Your task to perform on an android device: change the clock display to show seconds Image 0: 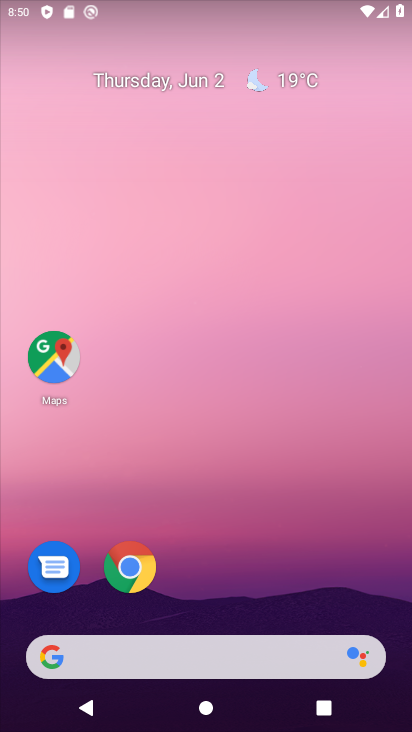
Step 0: press home button
Your task to perform on an android device: change the clock display to show seconds Image 1: 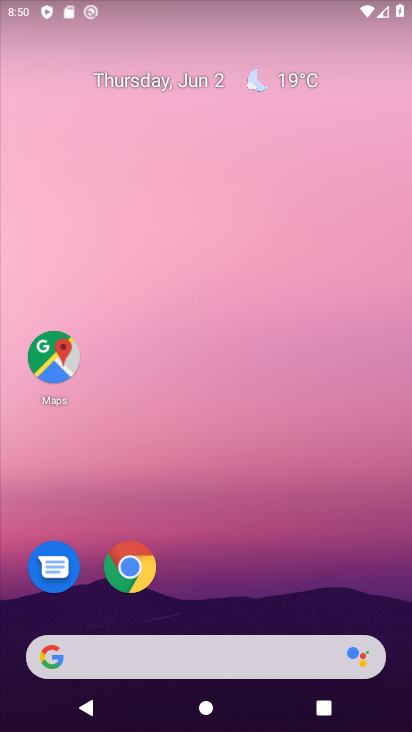
Step 1: click (239, 105)
Your task to perform on an android device: change the clock display to show seconds Image 2: 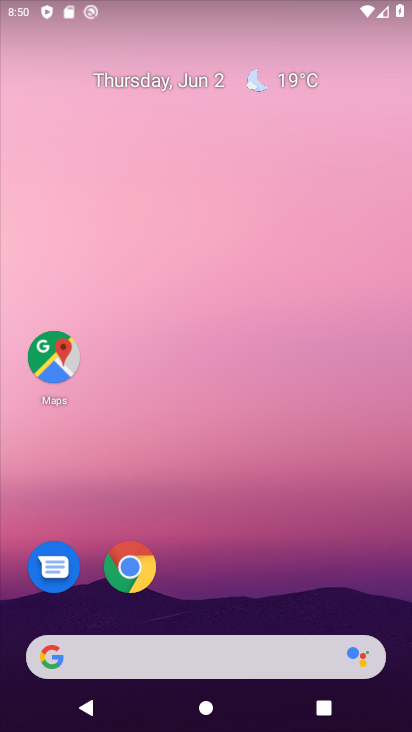
Step 2: drag from (213, 610) to (207, 0)
Your task to perform on an android device: change the clock display to show seconds Image 3: 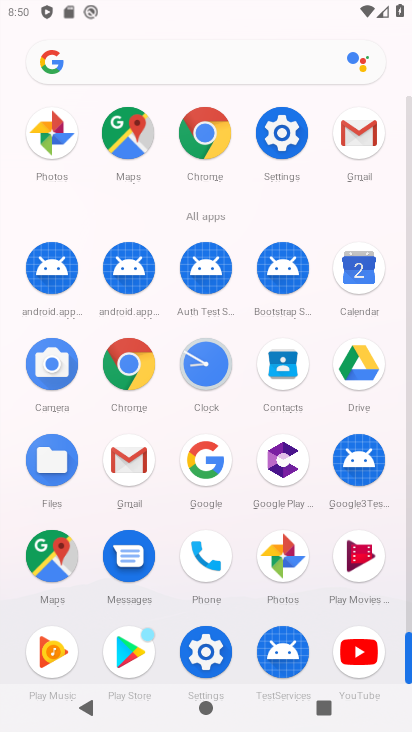
Step 3: click (206, 363)
Your task to perform on an android device: change the clock display to show seconds Image 4: 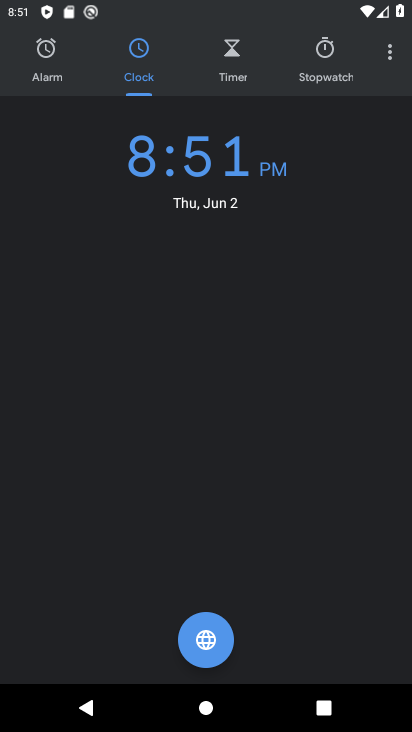
Step 4: click (384, 53)
Your task to perform on an android device: change the clock display to show seconds Image 5: 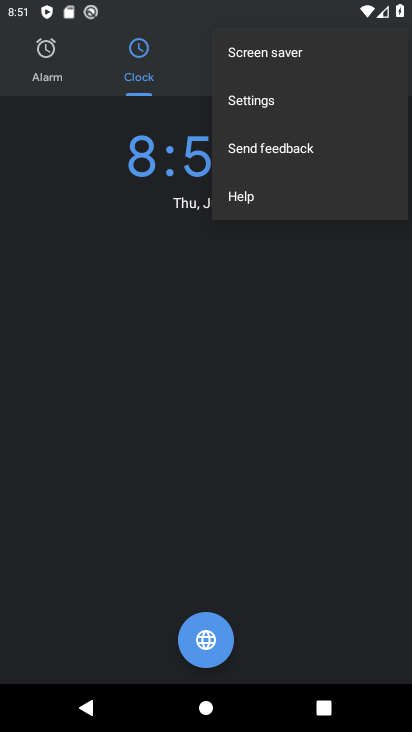
Step 5: click (289, 100)
Your task to perform on an android device: change the clock display to show seconds Image 6: 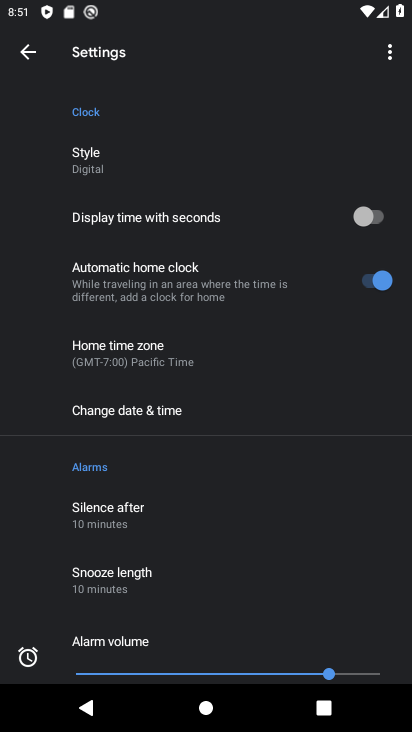
Step 6: click (375, 211)
Your task to perform on an android device: change the clock display to show seconds Image 7: 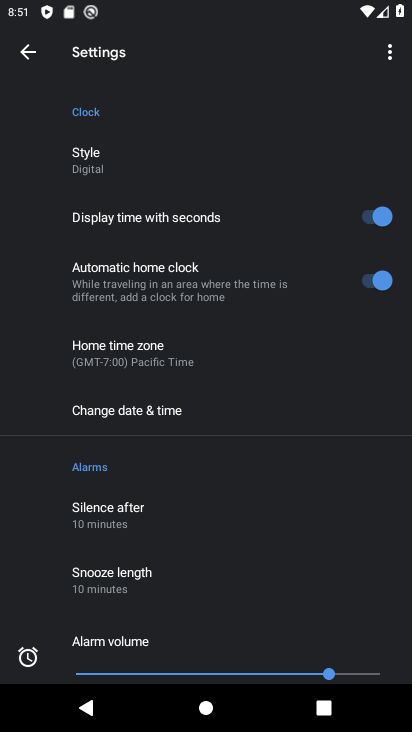
Step 7: task complete